Your task to perform on an android device: Go to settings Image 0: 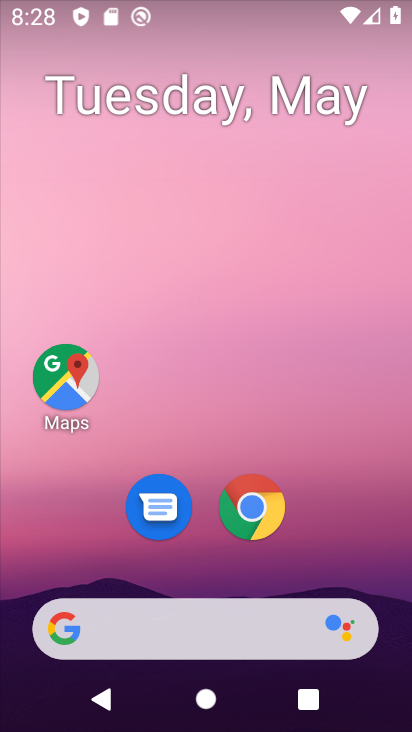
Step 0: drag from (393, 602) to (338, 318)
Your task to perform on an android device: Go to settings Image 1: 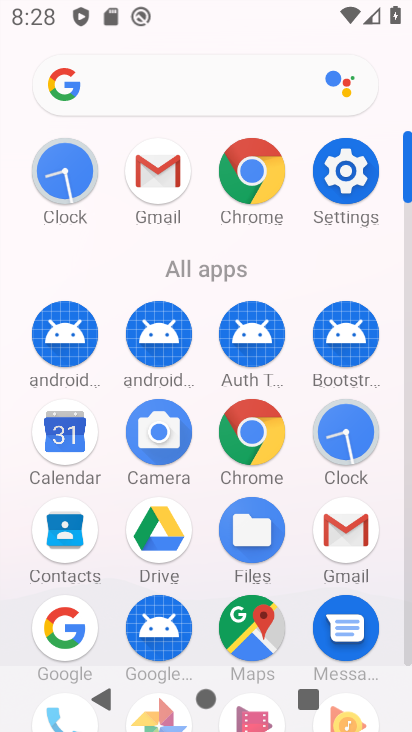
Step 1: click (346, 155)
Your task to perform on an android device: Go to settings Image 2: 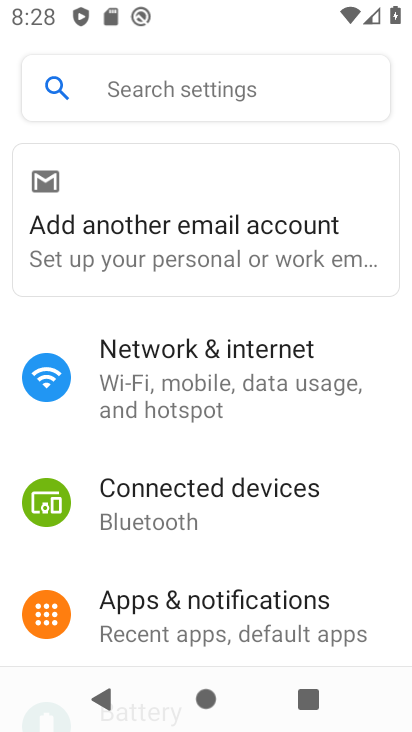
Step 2: task complete